Your task to perform on an android device: Clear all items from cart on newegg. Search for "razer thresher" on newegg, select the first entry, add it to the cart, then select checkout. Image 0: 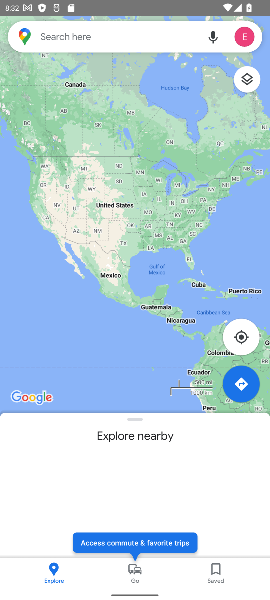
Step 0: press home button
Your task to perform on an android device: Clear all items from cart on newegg. Search for "razer thresher" on newegg, select the first entry, add it to the cart, then select checkout. Image 1: 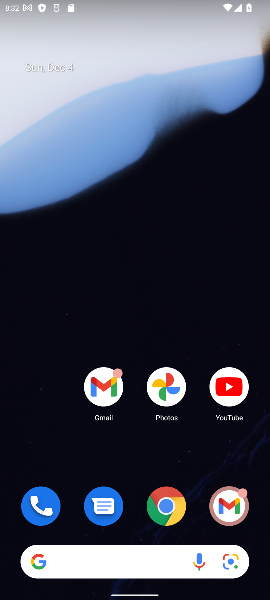
Step 1: click (157, 510)
Your task to perform on an android device: Clear all items from cart on newegg. Search for "razer thresher" on newegg, select the first entry, add it to the cart, then select checkout. Image 2: 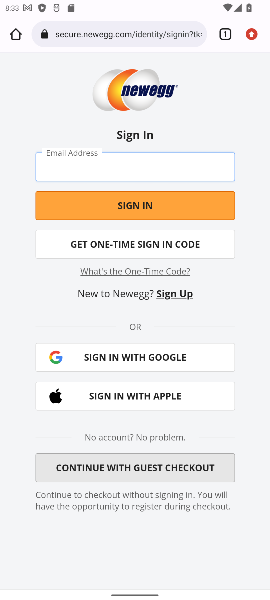
Step 2: click (106, 33)
Your task to perform on an android device: Clear all items from cart on newegg. Search for "razer thresher" on newegg, select the first entry, add it to the cart, then select checkout. Image 3: 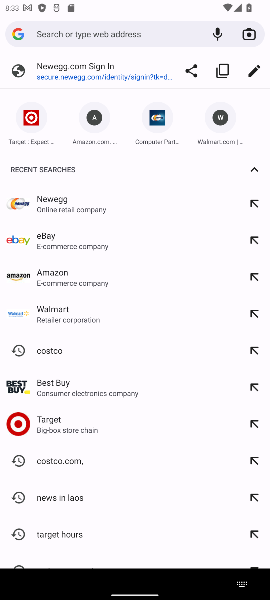
Step 3: click (54, 204)
Your task to perform on an android device: Clear all items from cart on newegg. Search for "razer thresher" on newegg, select the first entry, add it to the cart, then select checkout. Image 4: 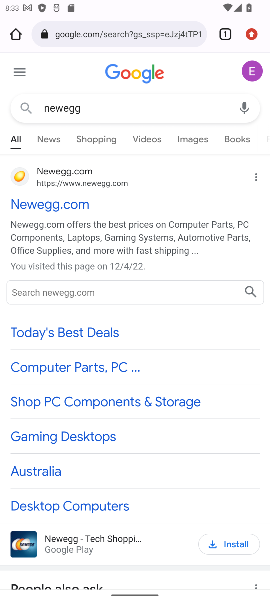
Step 4: click (47, 215)
Your task to perform on an android device: Clear all items from cart on newegg. Search for "razer thresher" on newegg, select the first entry, add it to the cart, then select checkout. Image 5: 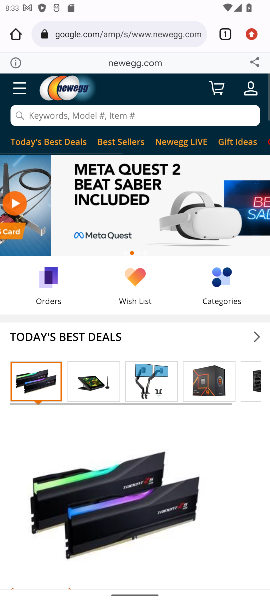
Step 5: click (220, 89)
Your task to perform on an android device: Clear all items from cart on newegg. Search for "razer thresher" on newegg, select the first entry, add it to the cart, then select checkout. Image 6: 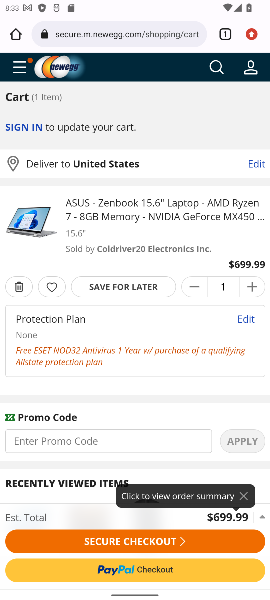
Step 6: click (22, 288)
Your task to perform on an android device: Clear all items from cart on newegg. Search for "razer thresher" on newegg, select the first entry, add it to the cart, then select checkout. Image 7: 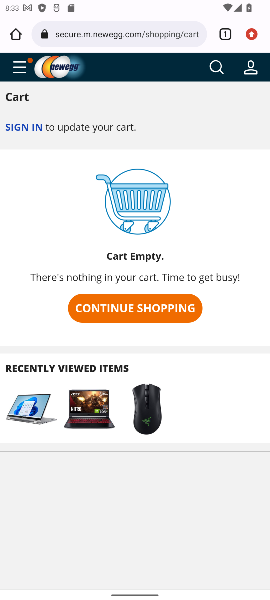
Step 7: click (125, 311)
Your task to perform on an android device: Clear all items from cart on newegg. Search for "razer thresher" on newegg, select the first entry, add it to the cart, then select checkout. Image 8: 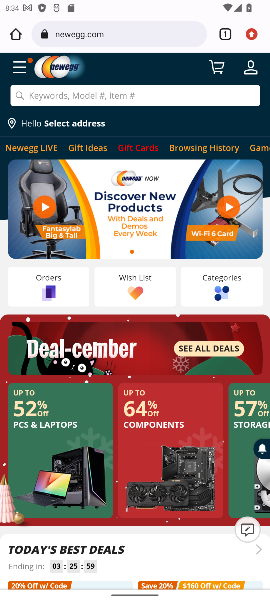
Step 8: click (65, 96)
Your task to perform on an android device: Clear all items from cart on newegg. Search for "razer thresher" on newegg, select the first entry, add it to the cart, then select checkout. Image 9: 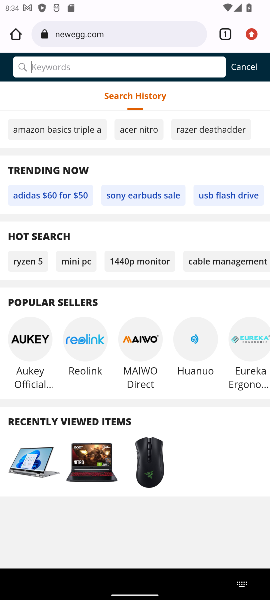
Step 9: type "razer thresher"
Your task to perform on an android device: Clear all items from cart on newegg. Search for "razer thresher" on newegg, select the first entry, add it to the cart, then select checkout. Image 10: 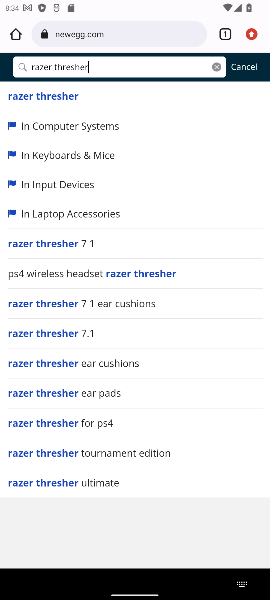
Step 10: click (31, 93)
Your task to perform on an android device: Clear all items from cart on newegg. Search for "razer thresher" on newegg, select the first entry, add it to the cart, then select checkout. Image 11: 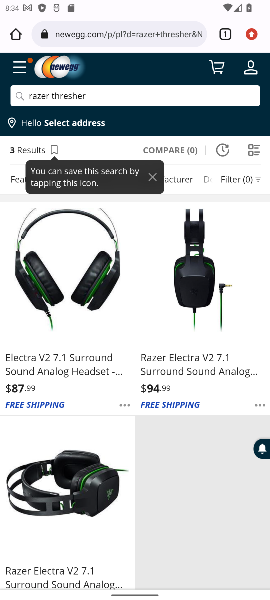
Step 11: task complete